Your task to perform on an android device: turn pop-ups on in chrome Image 0: 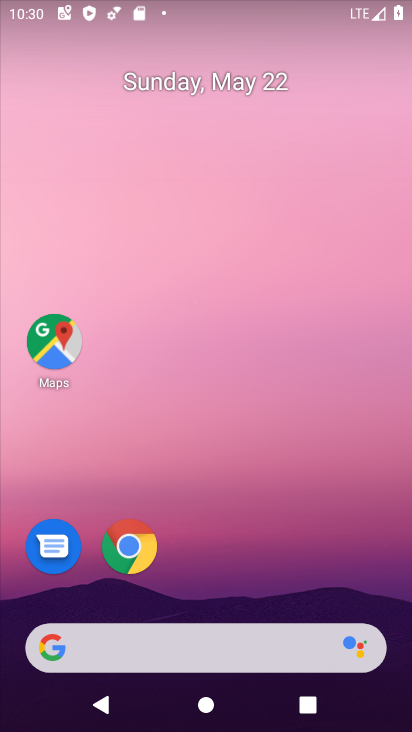
Step 0: click (136, 544)
Your task to perform on an android device: turn pop-ups on in chrome Image 1: 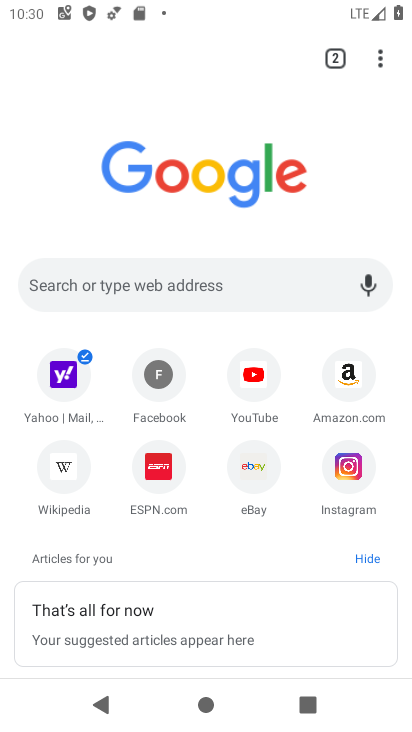
Step 1: click (381, 57)
Your task to perform on an android device: turn pop-ups on in chrome Image 2: 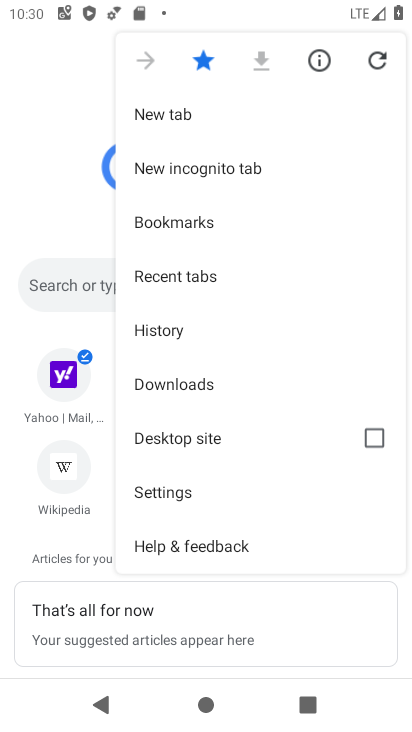
Step 2: click (164, 497)
Your task to perform on an android device: turn pop-ups on in chrome Image 3: 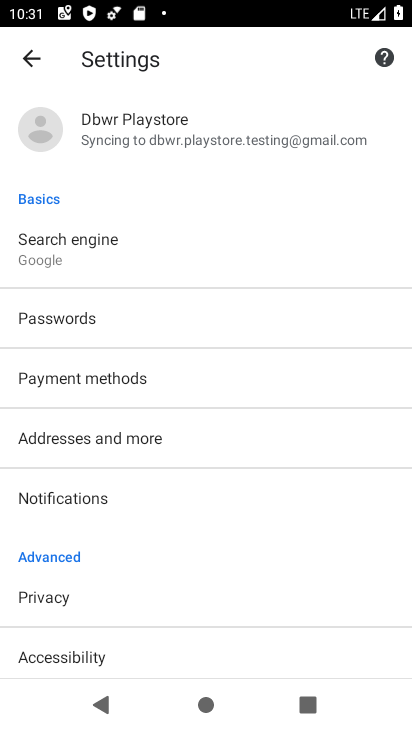
Step 3: drag from (113, 578) to (203, 150)
Your task to perform on an android device: turn pop-ups on in chrome Image 4: 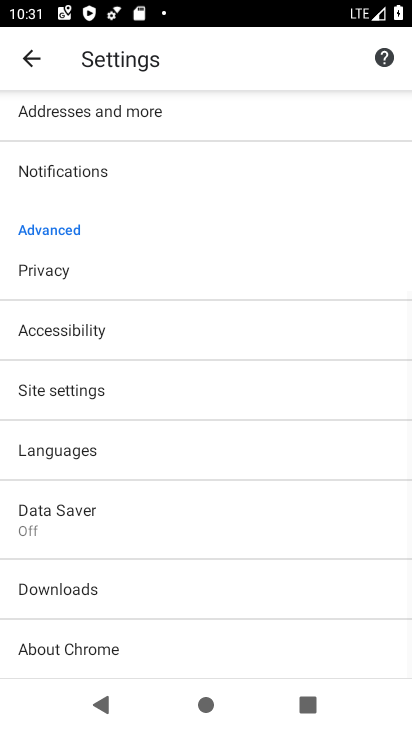
Step 4: click (86, 396)
Your task to perform on an android device: turn pop-ups on in chrome Image 5: 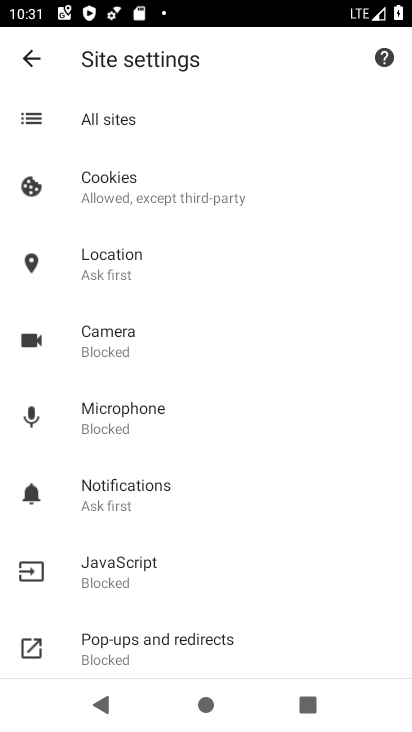
Step 5: click (137, 640)
Your task to perform on an android device: turn pop-ups on in chrome Image 6: 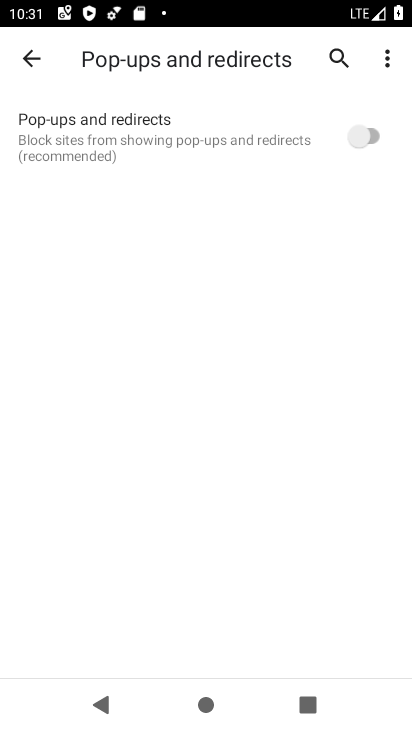
Step 6: click (384, 134)
Your task to perform on an android device: turn pop-ups on in chrome Image 7: 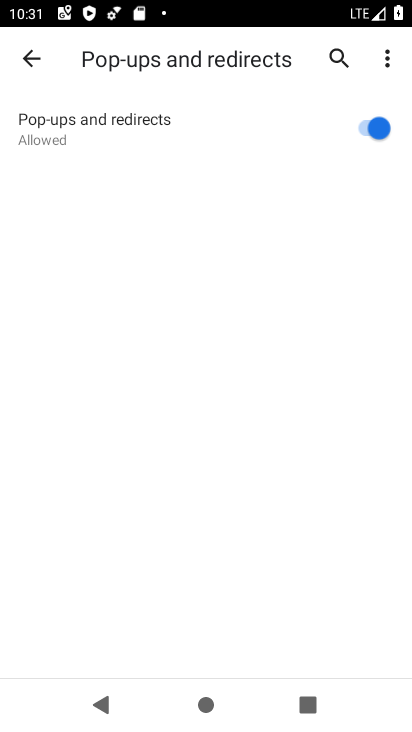
Step 7: task complete